Your task to perform on an android device: open wifi settings Image 0: 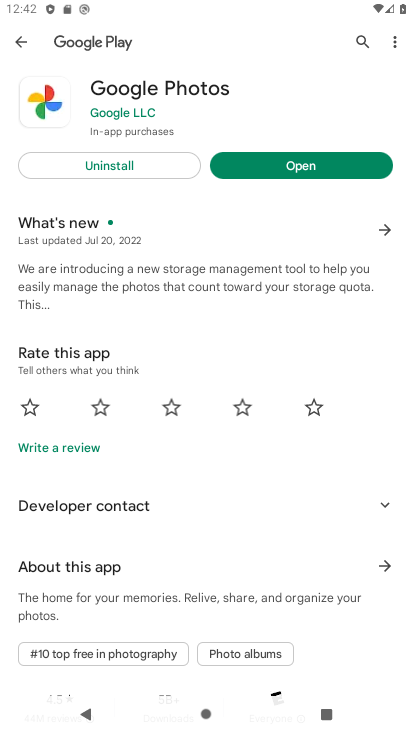
Step 0: press home button
Your task to perform on an android device: open wifi settings Image 1: 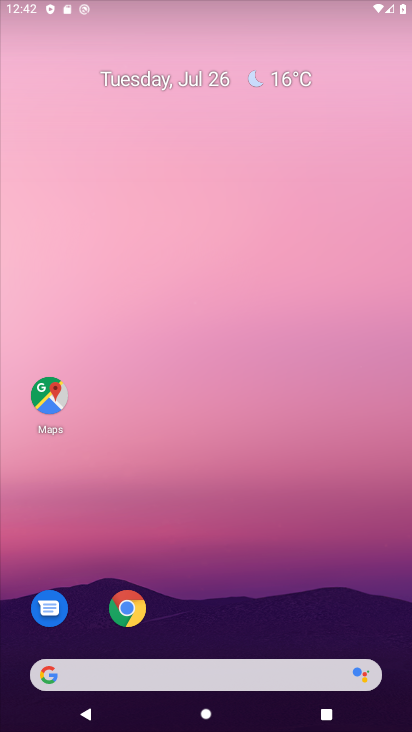
Step 1: drag from (287, 619) to (73, 80)
Your task to perform on an android device: open wifi settings Image 2: 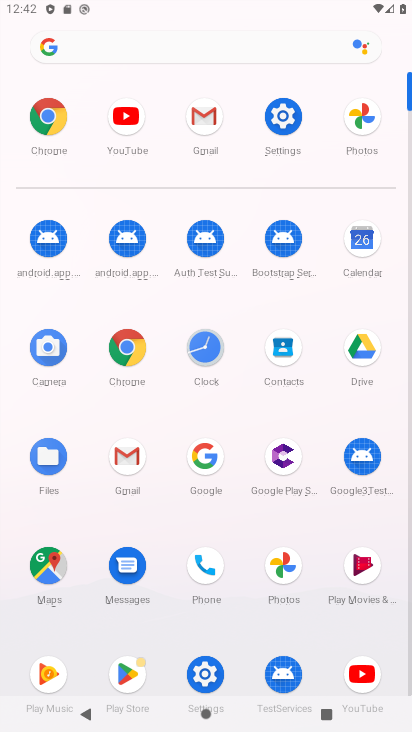
Step 2: click (265, 192)
Your task to perform on an android device: open wifi settings Image 3: 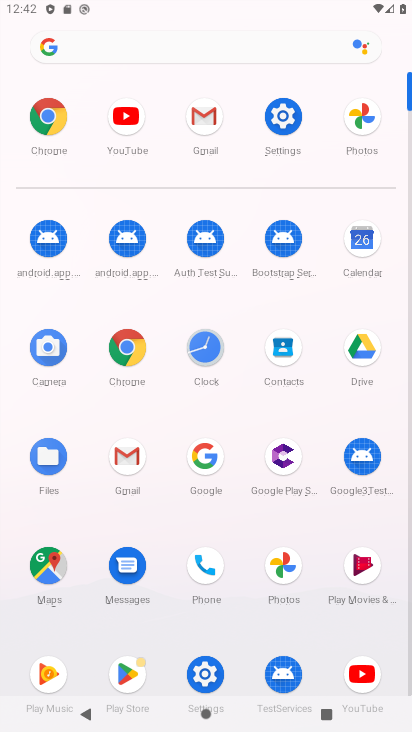
Step 3: click (301, 139)
Your task to perform on an android device: open wifi settings Image 4: 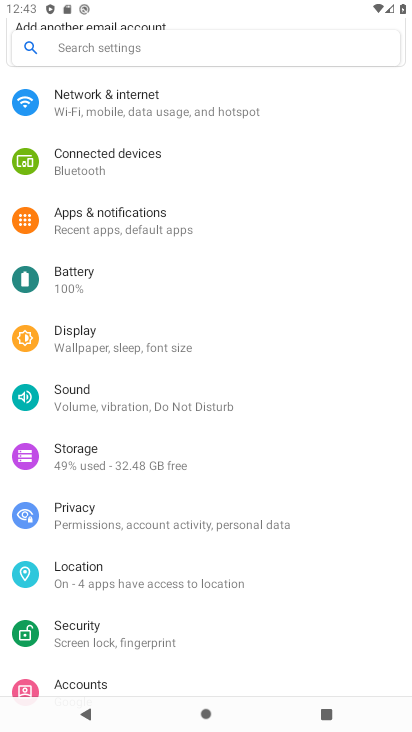
Step 4: click (109, 101)
Your task to perform on an android device: open wifi settings Image 5: 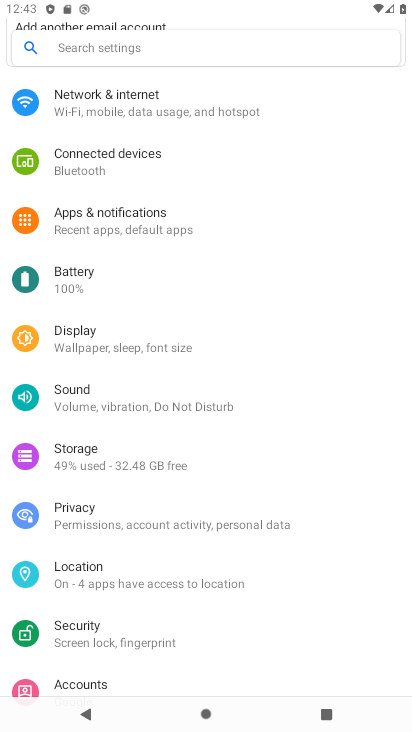
Step 5: task complete